Your task to perform on an android device: turn pop-ups off in chrome Image 0: 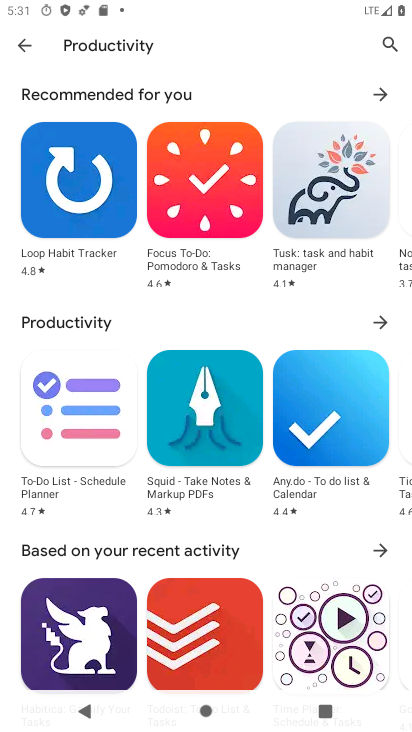
Step 0: press home button
Your task to perform on an android device: turn pop-ups off in chrome Image 1: 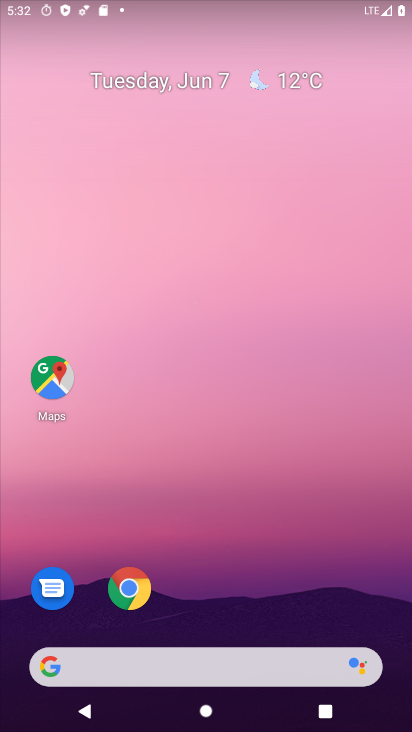
Step 1: click (126, 605)
Your task to perform on an android device: turn pop-ups off in chrome Image 2: 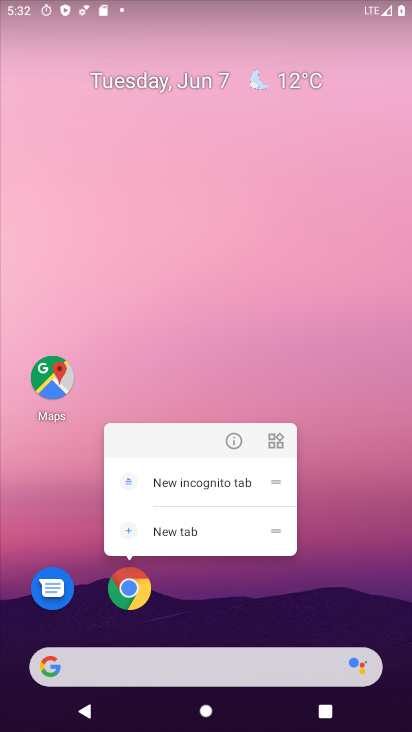
Step 2: click (124, 602)
Your task to perform on an android device: turn pop-ups off in chrome Image 3: 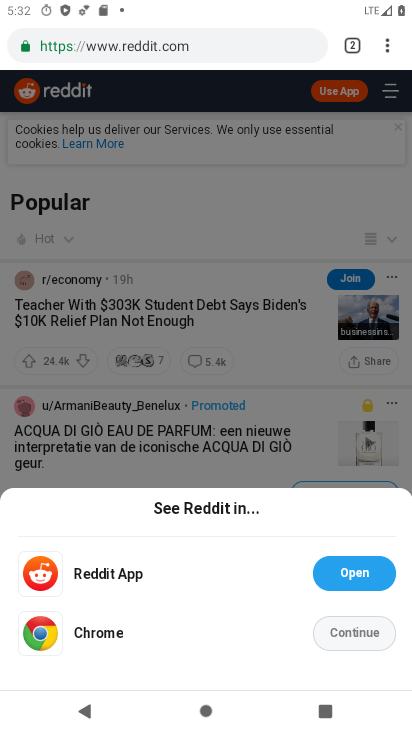
Step 3: click (338, 641)
Your task to perform on an android device: turn pop-ups off in chrome Image 4: 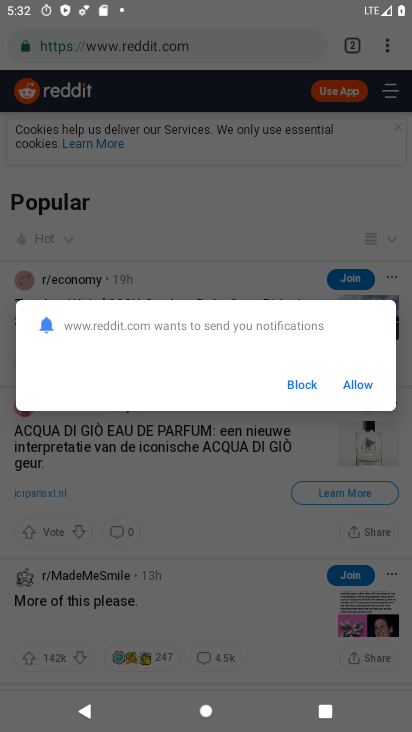
Step 4: click (296, 380)
Your task to perform on an android device: turn pop-ups off in chrome Image 5: 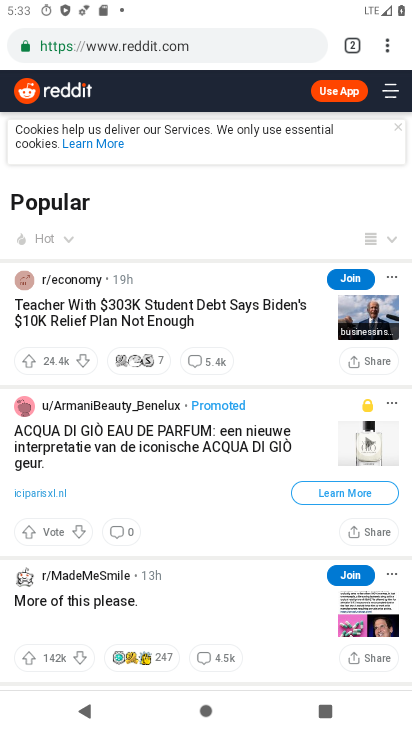
Step 5: drag from (178, 597) to (177, 375)
Your task to perform on an android device: turn pop-ups off in chrome Image 6: 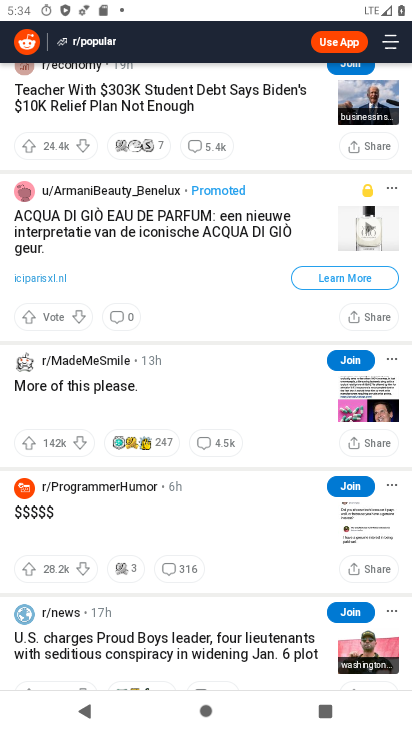
Step 6: drag from (195, 621) to (159, 261)
Your task to perform on an android device: turn pop-ups off in chrome Image 7: 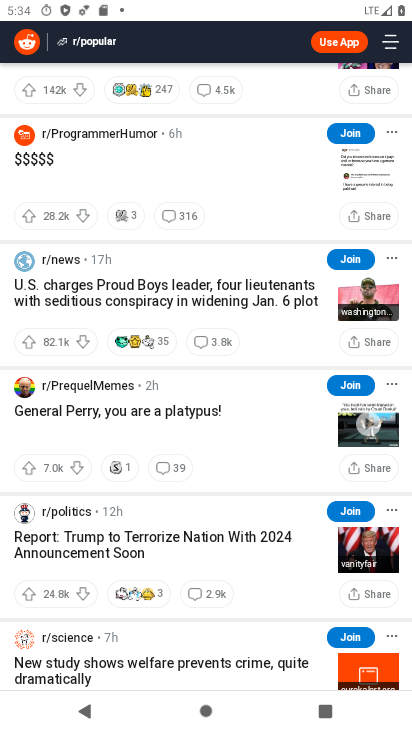
Step 7: drag from (187, 222) to (144, 544)
Your task to perform on an android device: turn pop-ups off in chrome Image 8: 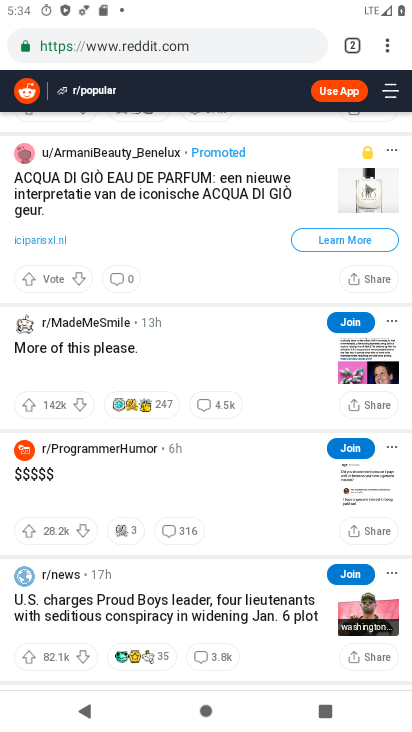
Step 8: click (384, 53)
Your task to perform on an android device: turn pop-ups off in chrome Image 9: 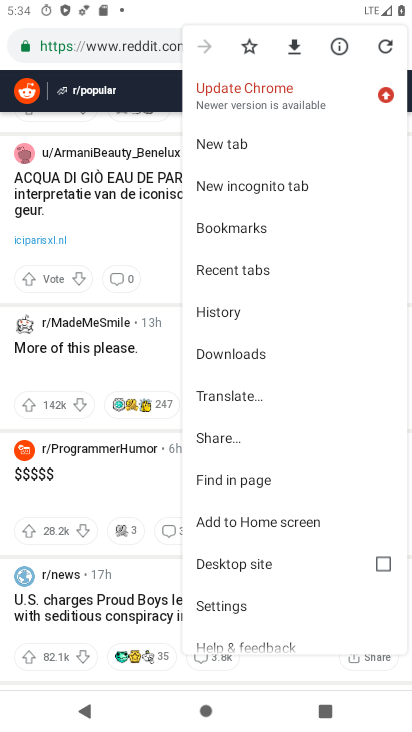
Step 9: drag from (254, 580) to (232, 351)
Your task to perform on an android device: turn pop-ups off in chrome Image 10: 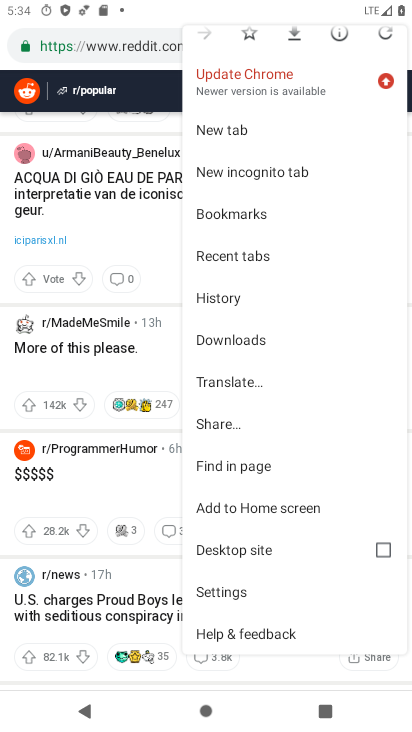
Step 10: click (246, 600)
Your task to perform on an android device: turn pop-ups off in chrome Image 11: 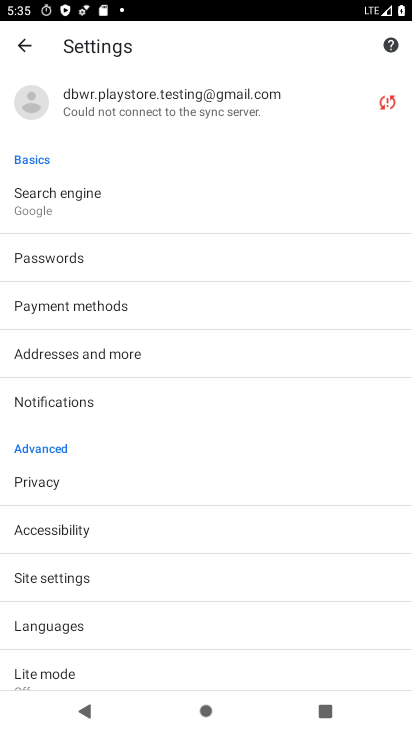
Step 11: drag from (164, 648) to (101, 230)
Your task to perform on an android device: turn pop-ups off in chrome Image 12: 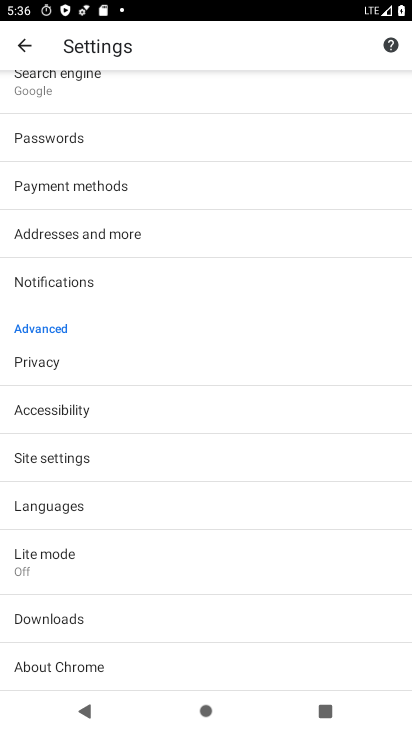
Step 12: drag from (166, 587) to (107, 420)
Your task to perform on an android device: turn pop-ups off in chrome Image 13: 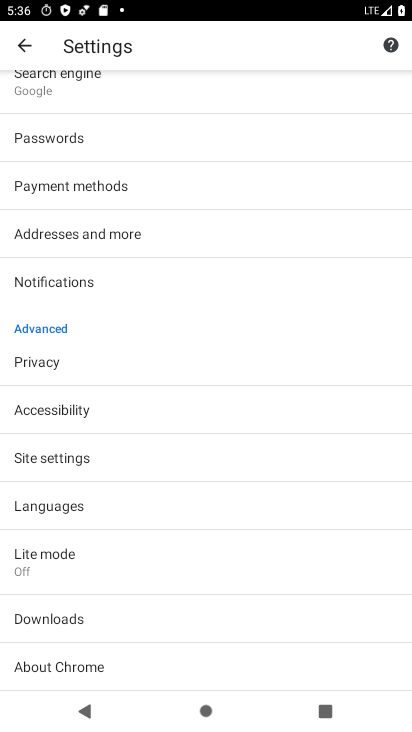
Step 13: drag from (115, 267) to (127, 473)
Your task to perform on an android device: turn pop-ups off in chrome Image 14: 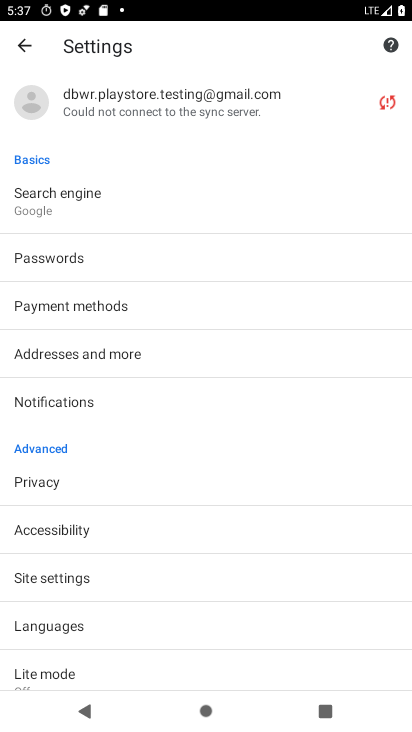
Step 14: drag from (61, 665) to (71, 461)
Your task to perform on an android device: turn pop-ups off in chrome Image 15: 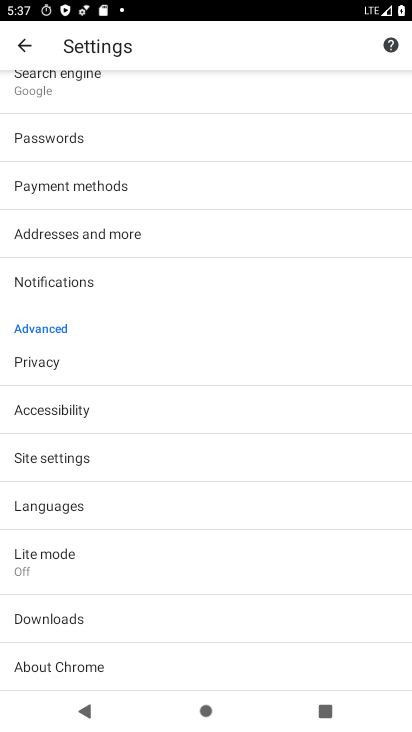
Step 15: click (46, 450)
Your task to perform on an android device: turn pop-ups off in chrome Image 16: 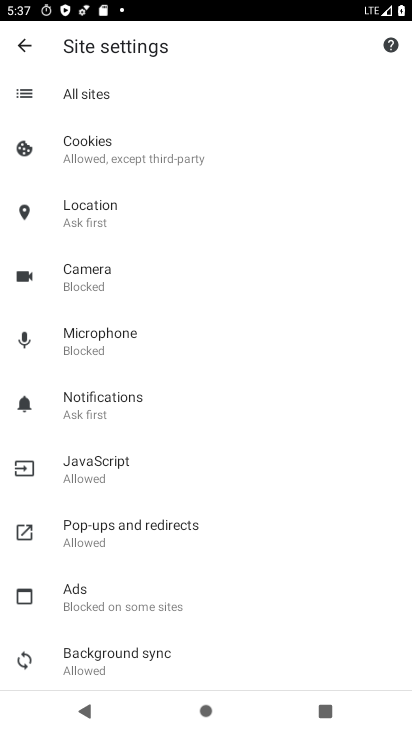
Step 16: click (117, 544)
Your task to perform on an android device: turn pop-ups off in chrome Image 17: 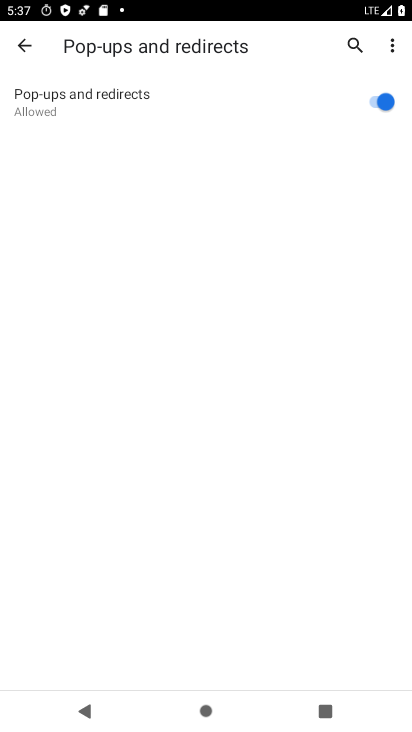
Step 17: click (376, 101)
Your task to perform on an android device: turn pop-ups off in chrome Image 18: 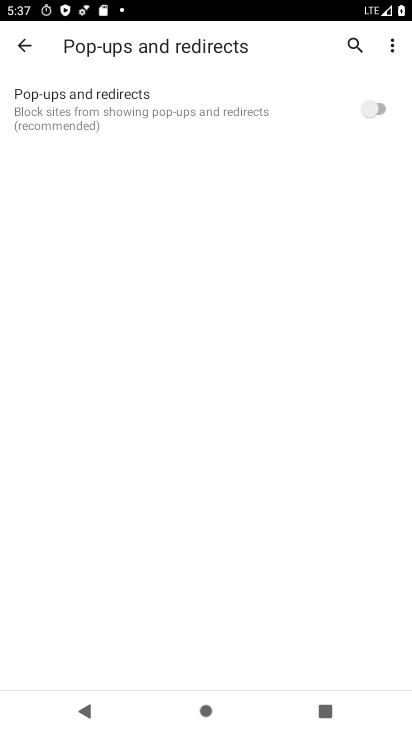
Step 18: task complete